Your task to perform on an android device: toggle wifi Image 0: 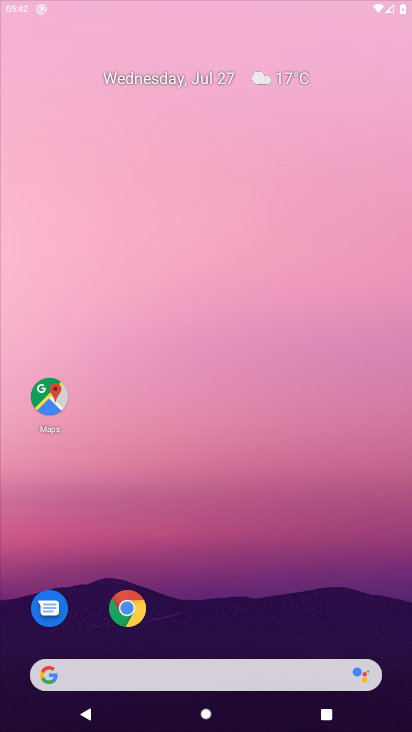
Step 0: press home button
Your task to perform on an android device: toggle wifi Image 1: 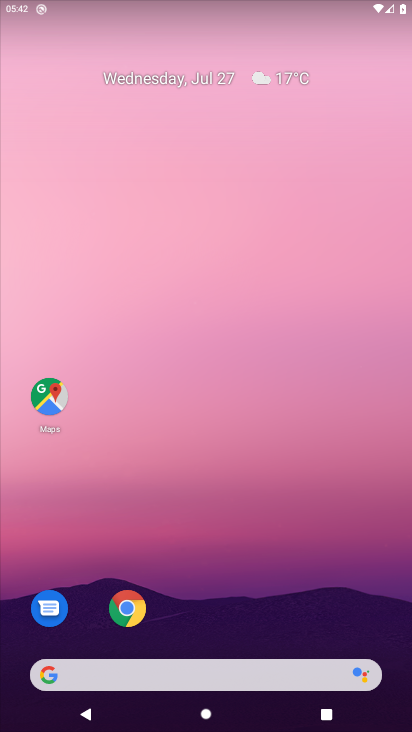
Step 1: drag from (136, 8) to (223, 442)
Your task to perform on an android device: toggle wifi Image 2: 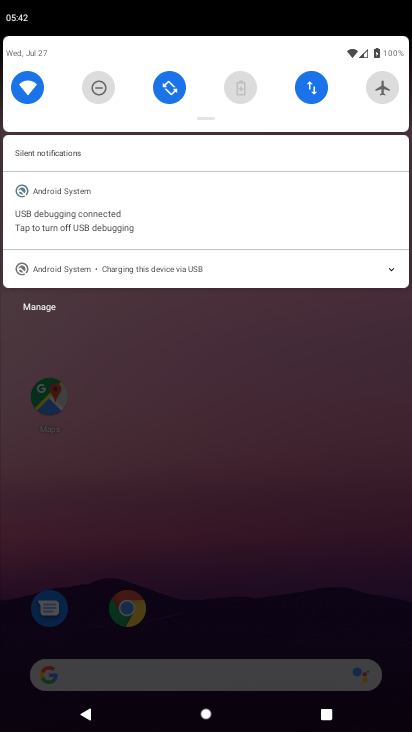
Step 2: click (34, 93)
Your task to perform on an android device: toggle wifi Image 3: 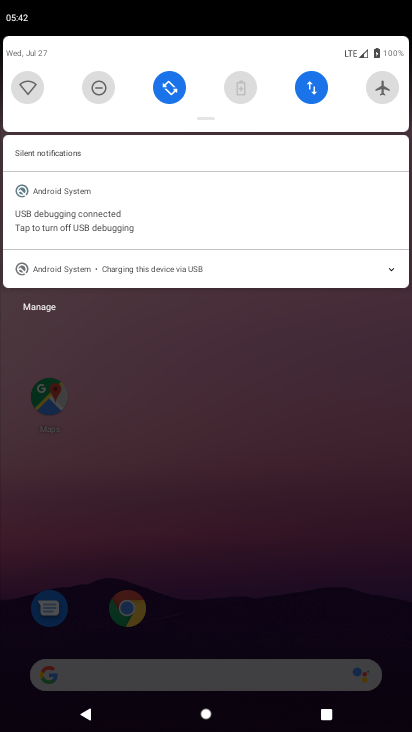
Step 3: task complete